Your task to perform on an android device: What is the recent news? Image 0: 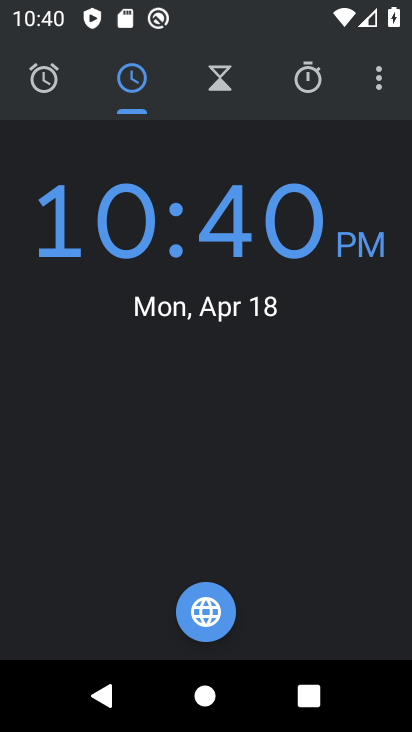
Step 0: press home button
Your task to perform on an android device: What is the recent news? Image 1: 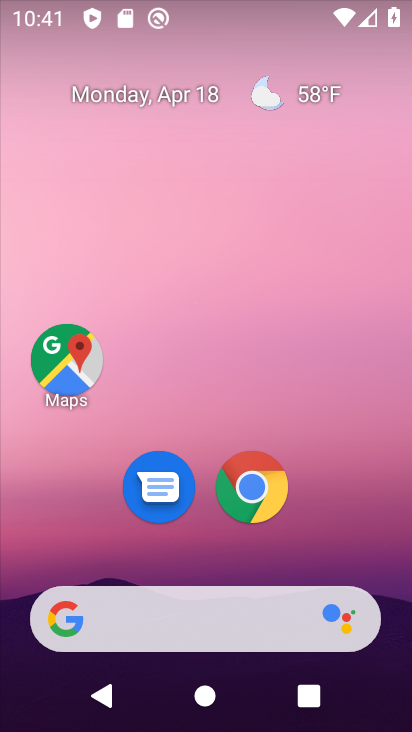
Step 1: task complete